Your task to perform on an android device: turn off airplane mode Image 0: 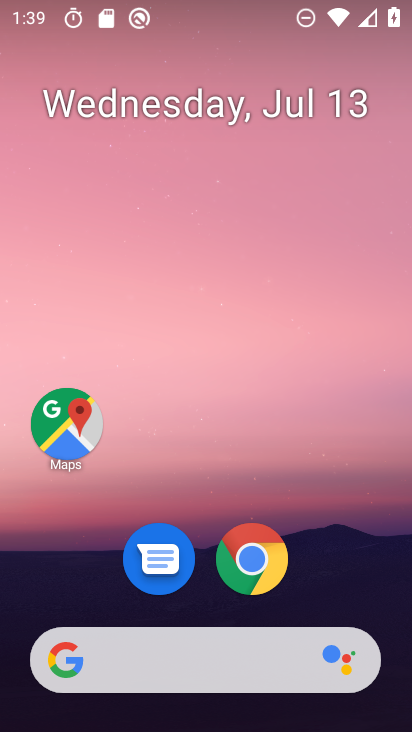
Step 0: drag from (209, 701) to (266, 267)
Your task to perform on an android device: turn off airplane mode Image 1: 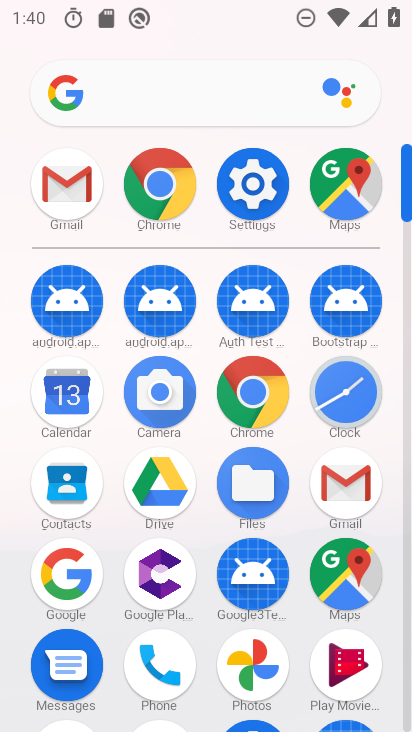
Step 1: click (267, 187)
Your task to perform on an android device: turn off airplane mode Image 2: 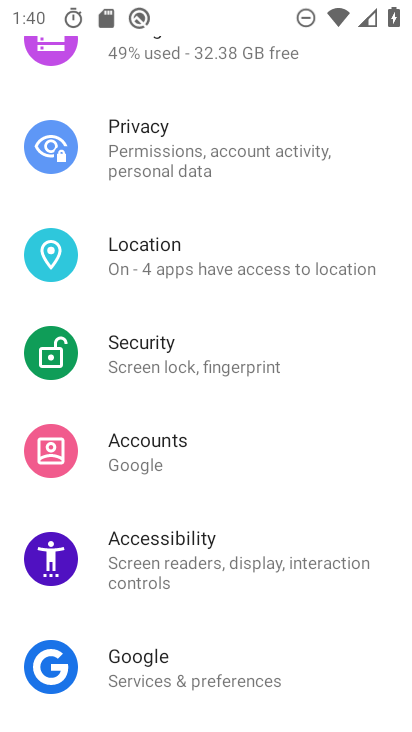
Step 2: drag from (253, 275) to (227, 476)
Your task to perform on an android device: turn off airplane mode Image 3: 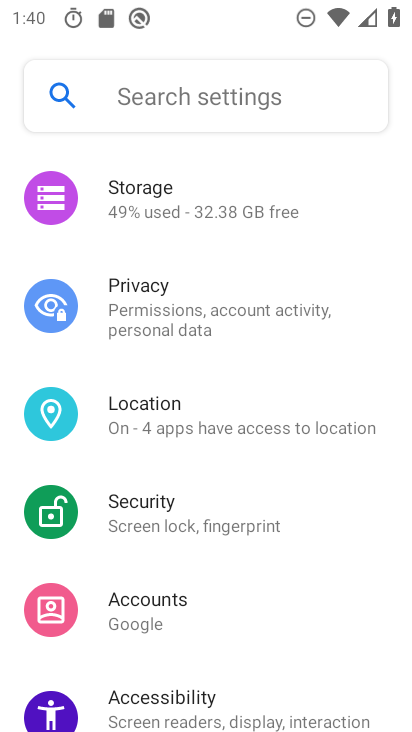
Step 3: drag from (230, 238) to (198, 651)
Your task to perform on an android device: turn off airplane mode Image 4: 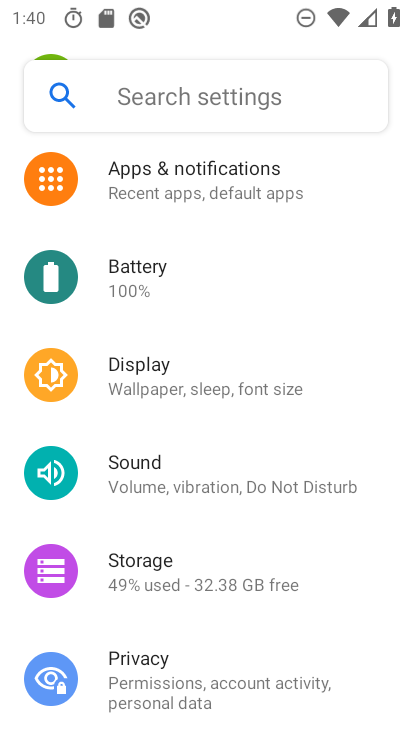
Step 4: drag from (198, 365) to (203, 599)
Your task to perform on an android device: turn off airplane mode Image 5: 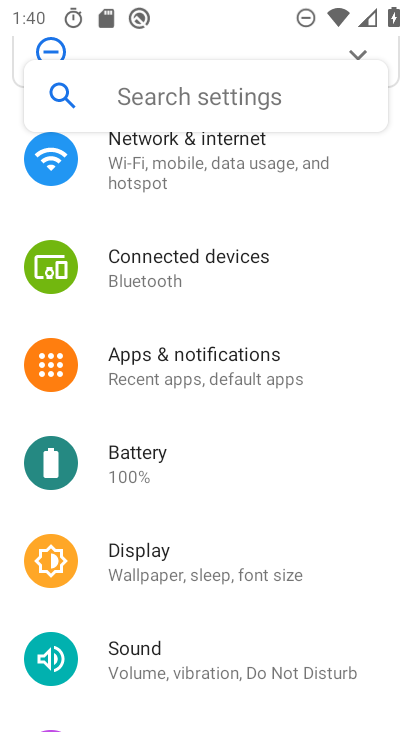
Step 5: drag from (258, 263) to (194, 548)
Your task to perform on an android device: turn off airplane mode Image 6: 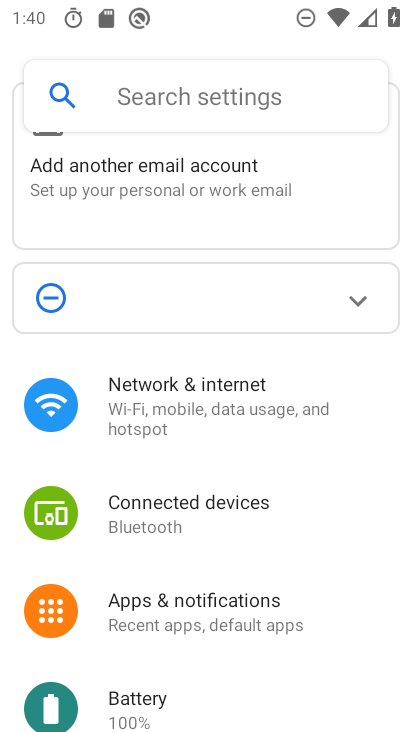
Step 6: click (203, 399)
Your task to perform on an android device: turn off airplane mode Image 7: 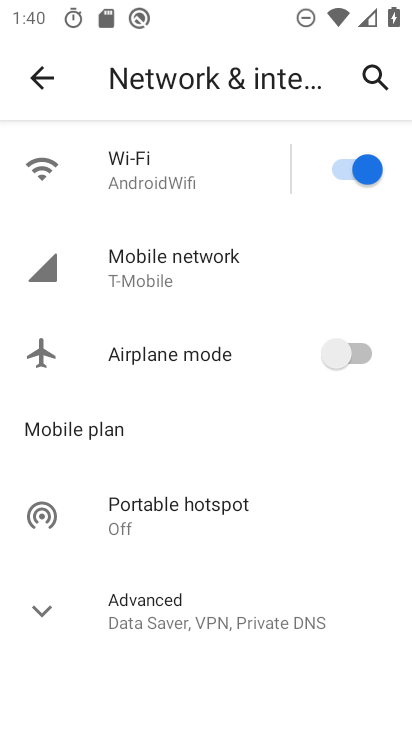
Step 7: task complete